Your task to perform on an android device: Search for pizza restaurants on Maps Image 0: 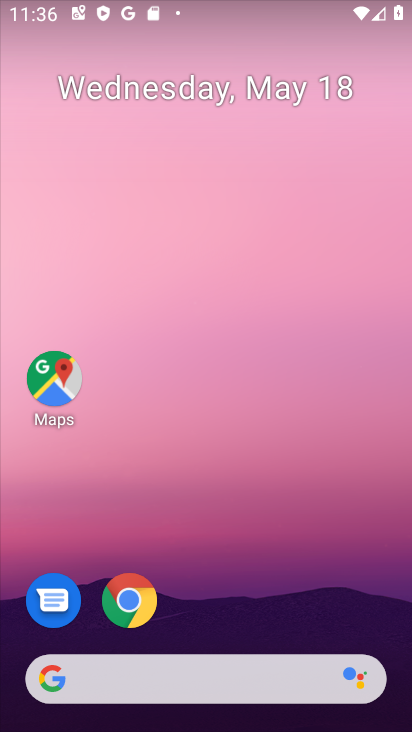
Step 0: click (69, 360)
Your task to perform on an android device: Search for pizza restaurants on Maps Image 1: 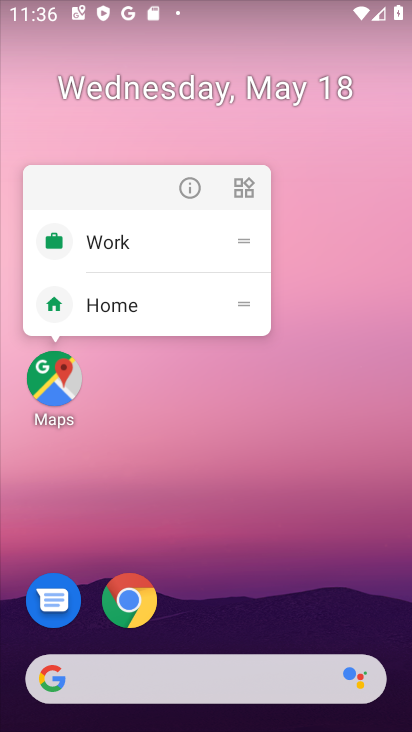
Step 1: click (56, 381)
Your task to perform on an android device: Search for pizza restaurants on Maps Image 2: 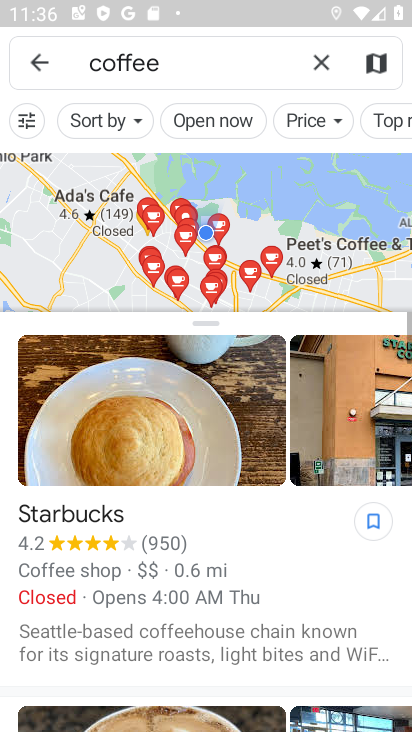
Step 2: click (308, 59)
Your task to perform on an android device: Search for pizza restaurants on Maps Image 3: 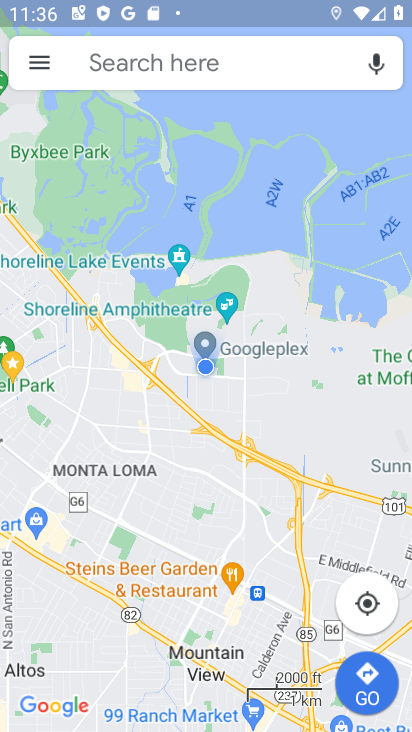
Step 3: click (237, 67)
Your task to perform on an android device: Search for pizza restaurants on Maps Image 4: 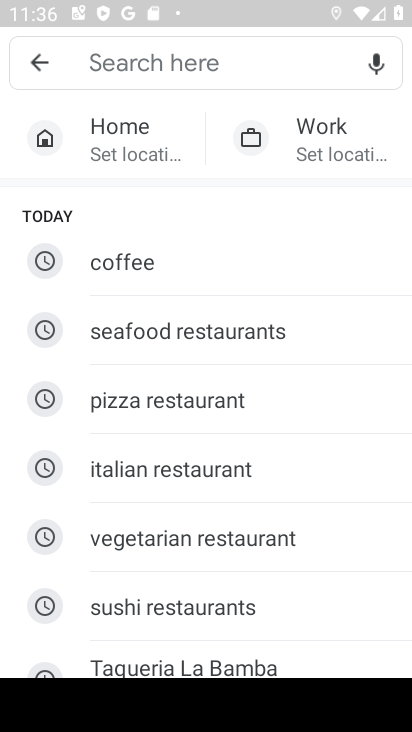
Step 4: type "Pizza restaurants"
Your task to perform on an android device: Search for pizza restaurants on Maps Image 5: 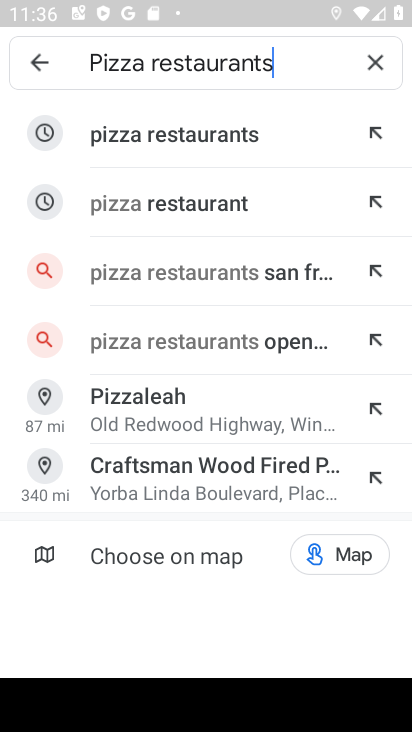
Step 5: click (163, 141)
Your task to perform on an android device: Search for pizza restaurants on Maps Image 6: 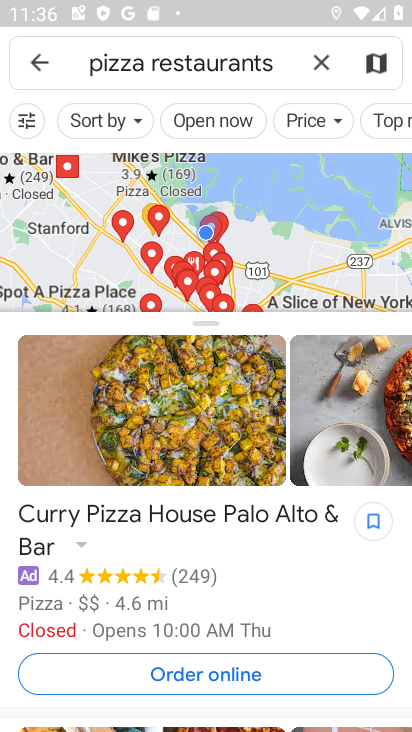
Step 6: task complete